Your task to perform on an android device: open app "Viber Messenger" (install if not already installed) and enter user name: "blameless@icloud.com" and password: "Yoknapatawpha" Image 0: 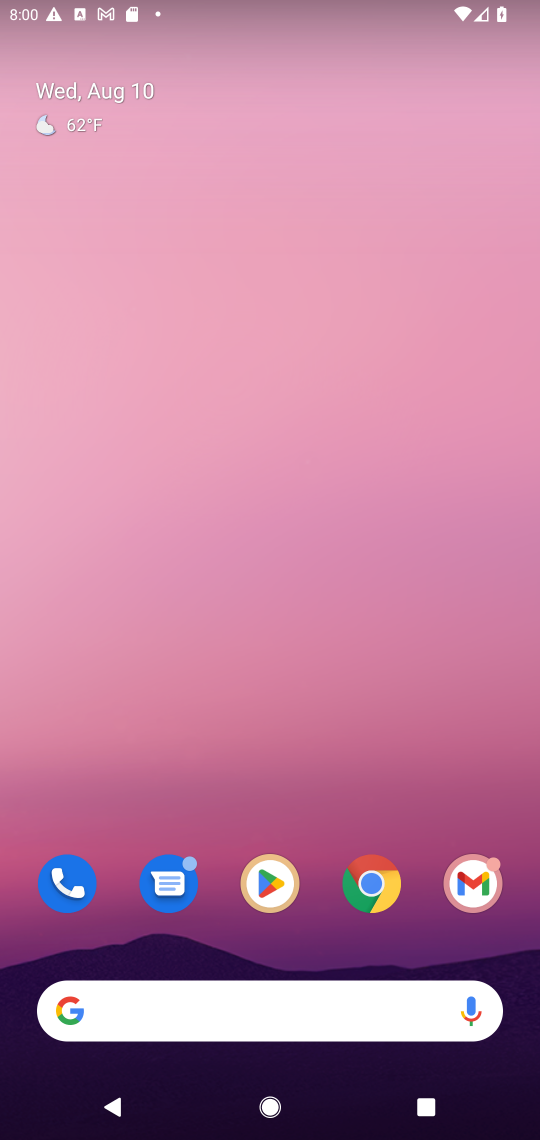
Step 0: click (295, 881)
Your task to perform on an android device: open app "Viber Messenger" (install if not already installed) and enter user name: "blameless@icloud.com" and password: "Yoknapatawpha" Image 1: 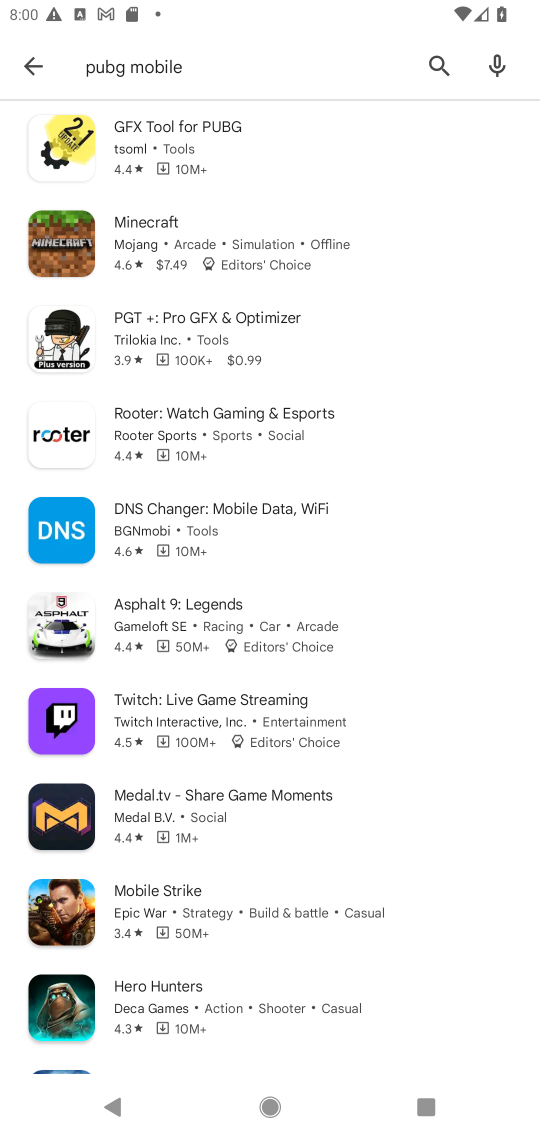
Step 1: click (427, 64)
Your task to perform on an android device: open app "Viber Messenger" (install if not already installed) and enter user name: "blameless@icloud.com" and password: "Yoknapatawpha" Image 2: 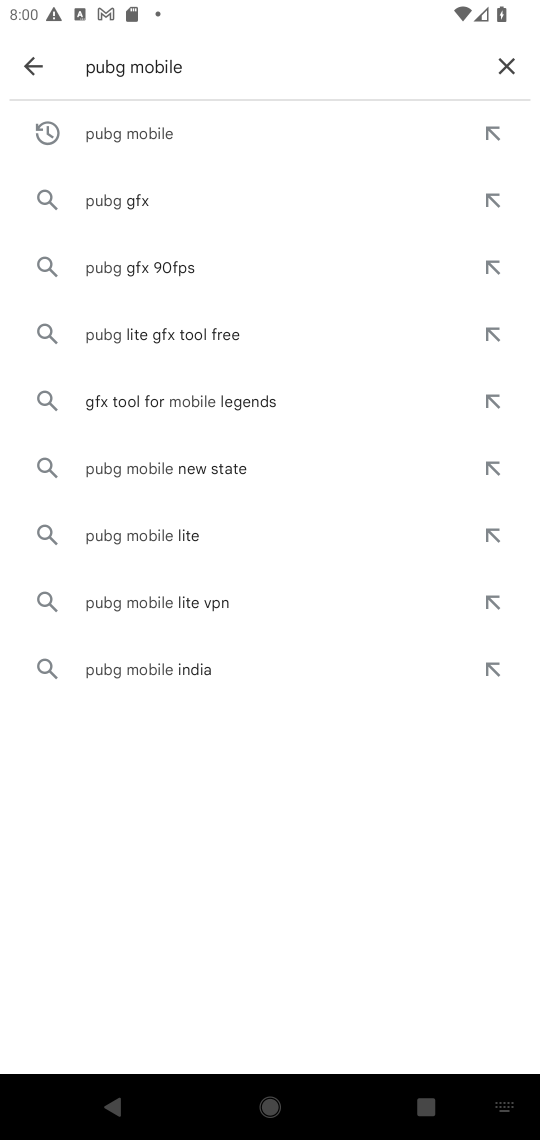
Step 2: click (492, 64)
Your task to perform on an android device: open app "Viber Messenger" (install if not already installed) and enter user name: "blameless@icloud.com" and password: "Yoknapatawpha" Image 3: 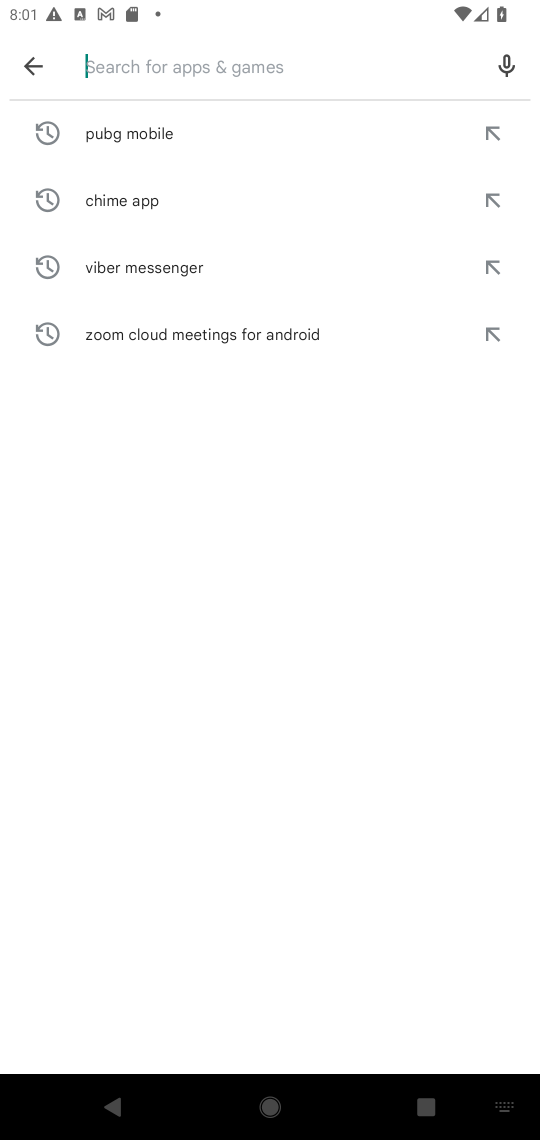
Step 3: type "Viber Messenger"
Your task to perform on an android device: open app "Viber Messenger" (install if not already installed) and enter user name: "blameless@icloud.com" and password: "Yoknapatawpha" Image 4: 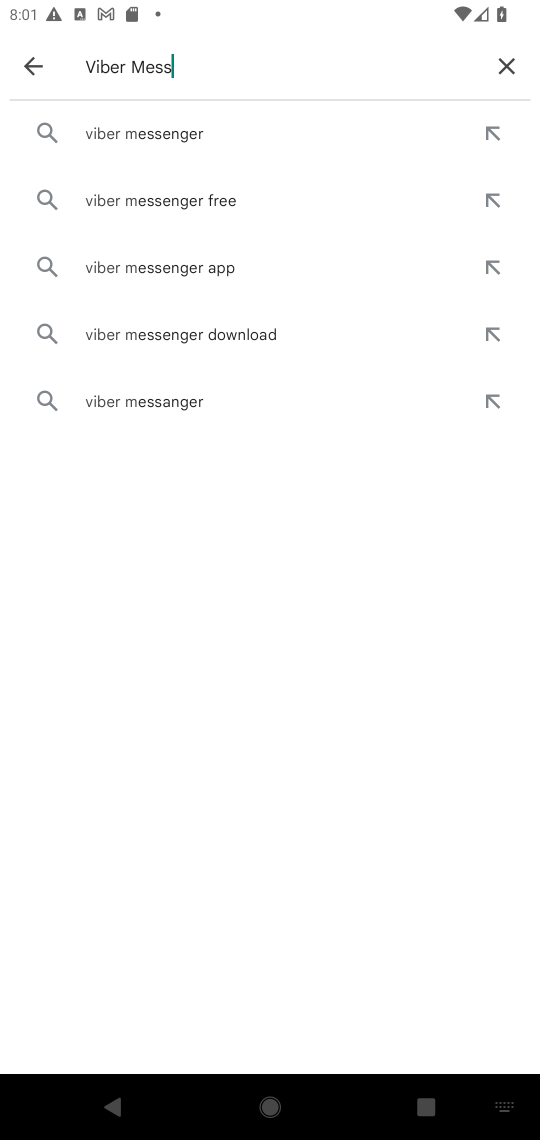
Step 4: type ""
Your task to perform on an android device: open app "Viber Messenger" (install if not already installed) and enter user name: "blameless@icloud.com" and password: "Yoknapatawpha" Image 5: 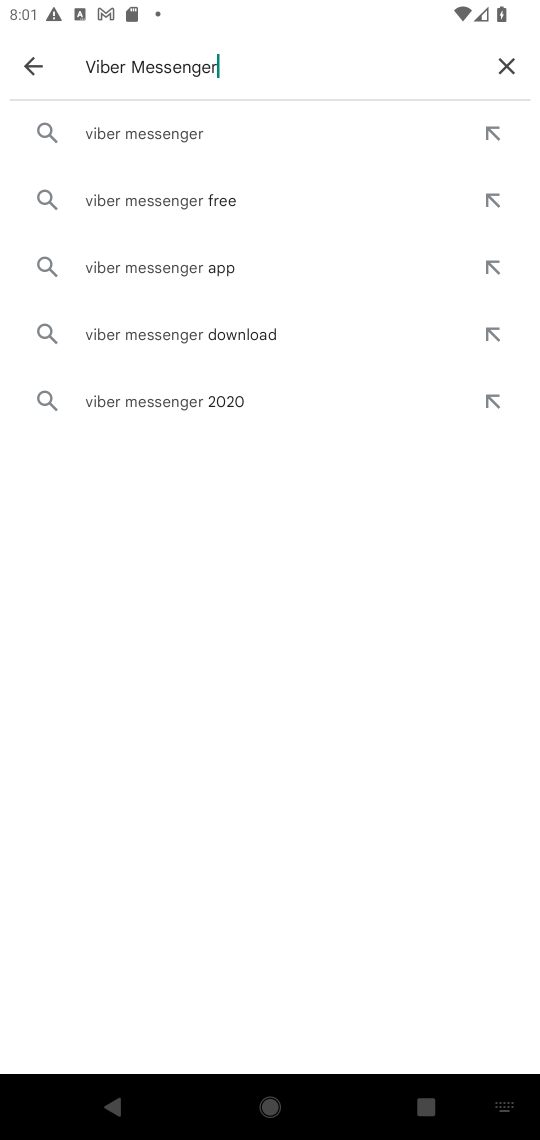
Step 5: click (184, 128)
Your task to perform on an android device: open app "Viber Messenger" (install if not already installed) and enter user name: "blameless@icloud.com" and password: "Yoknapatawpha" Image 6: 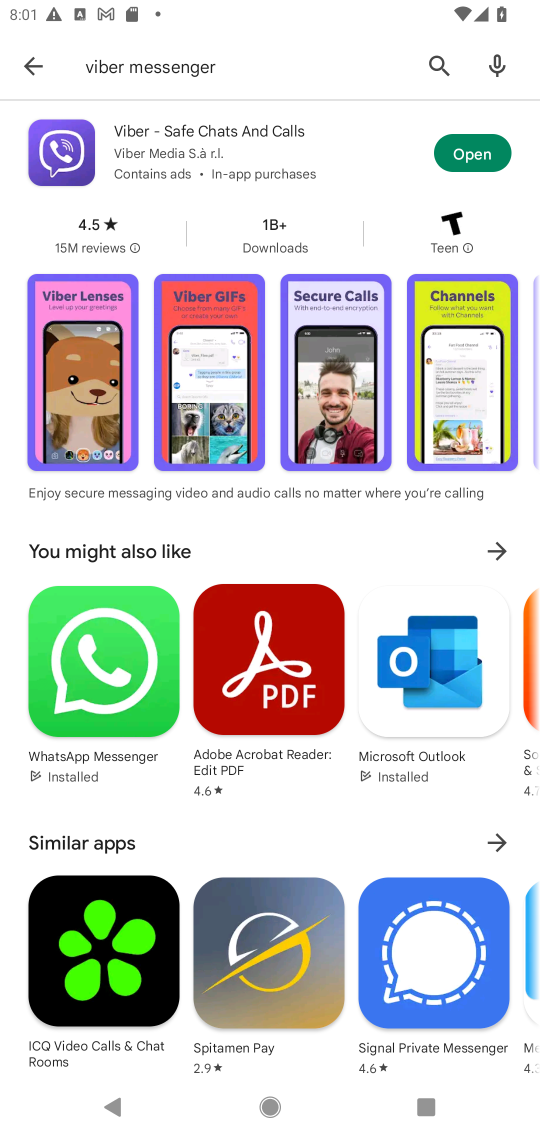
Step 6: click (478, 147)
Your task to perform on an android device: open app "Viber Messenger" (install if not already installed) and enter user name: "blameless@icloud.com" and password: "Yoknapatawpha" Image 7: 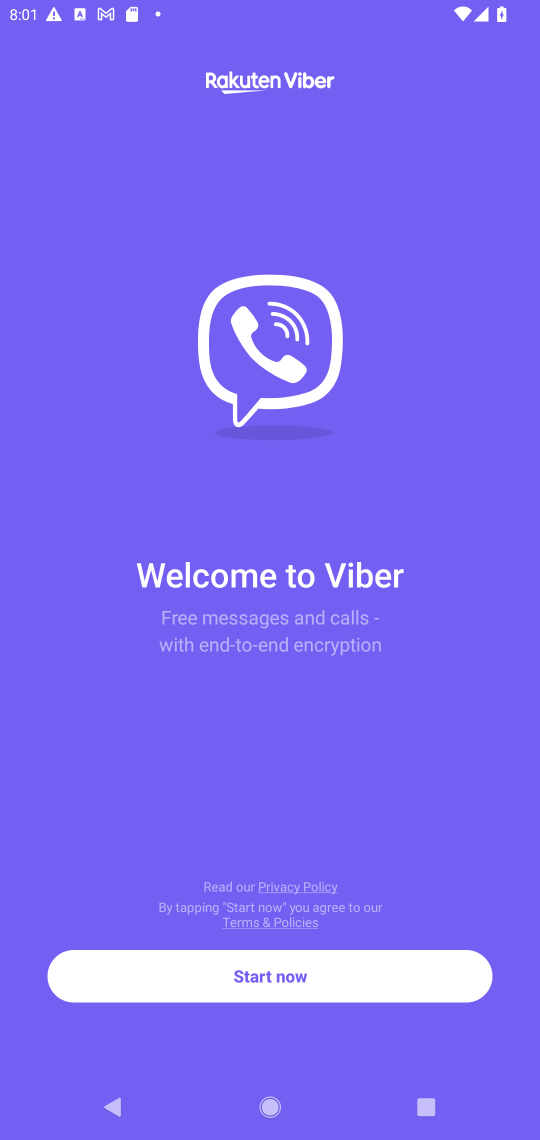
Step 7: task complete